Your task to perform on an android device: delete browsing data in the chrome app Image 0: 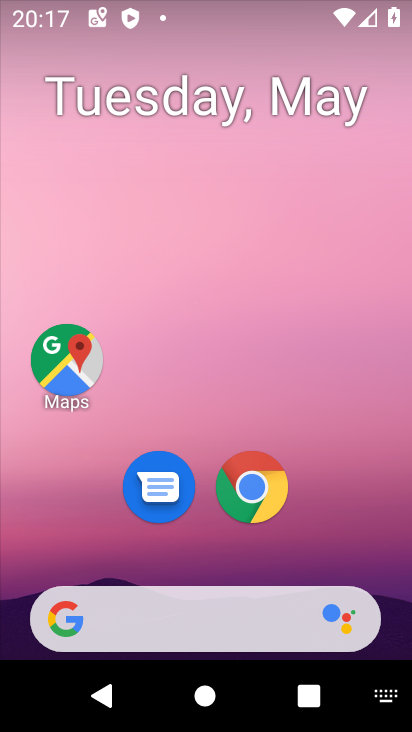
Step 0: click (250, 495)
Your task to perform on an android device: delete browsing data in the chrome app Image 1: 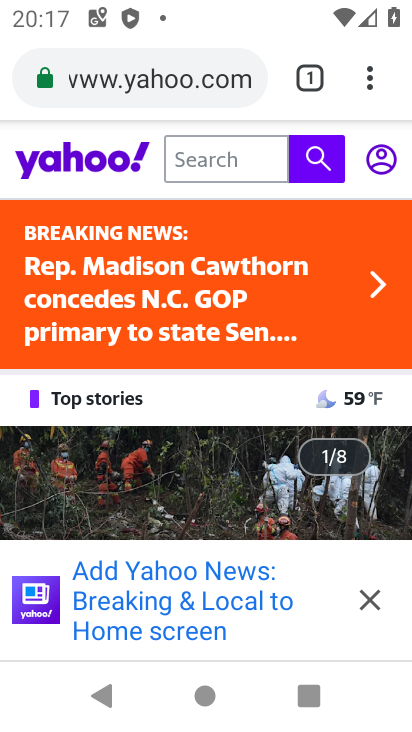
Step 1: click (386, 76)
Your task to perform on an android device: delete browsing data in the chrome app Image 2: 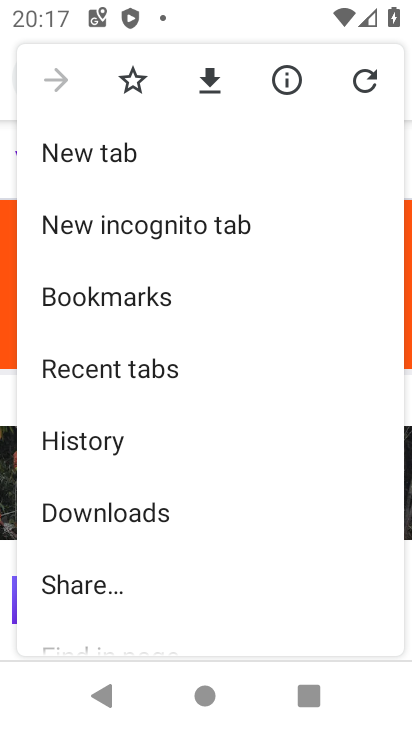
Step 2: drag from (209, 542) to (198, 348)
Your task to perform on an android device: delete browsing data in the chrome app Image 3: 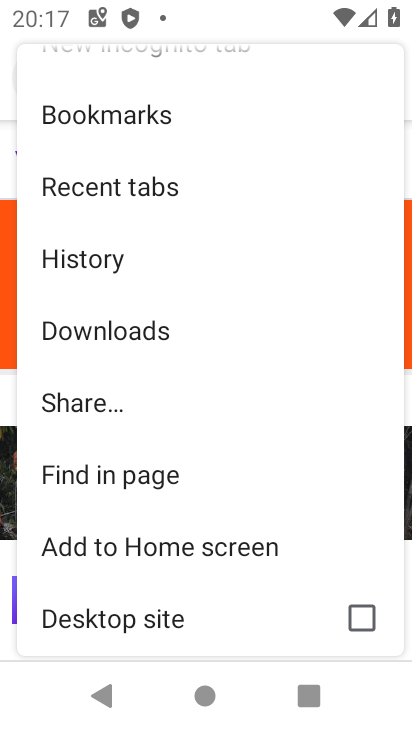
Step 3: drag from (216, 559) to (197, 206)
Your task to perform on an android device: delete browsing data in the chrome app Image 4: 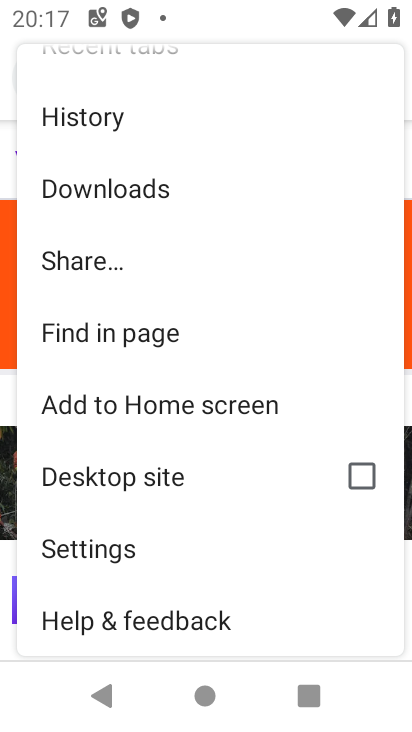
Step 4: click (195, 544)
Your task to perform on an android device: delete browsing data in the chrome app Image 5: 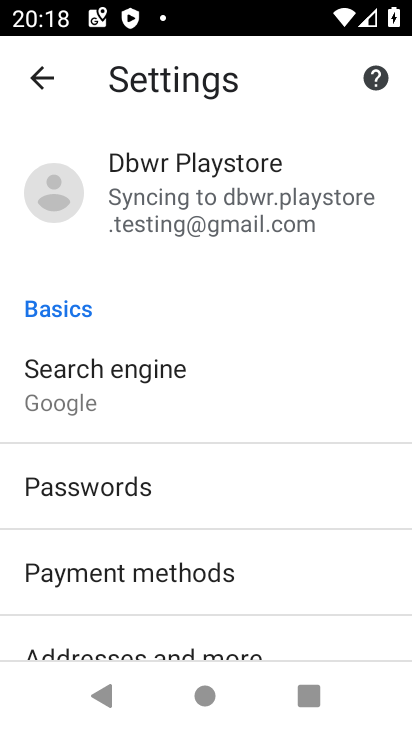
Step 5: drag from (193, 598) to (161, 316)
Your task to perform on an android device: delete browsing data in the chrome app Image 6: 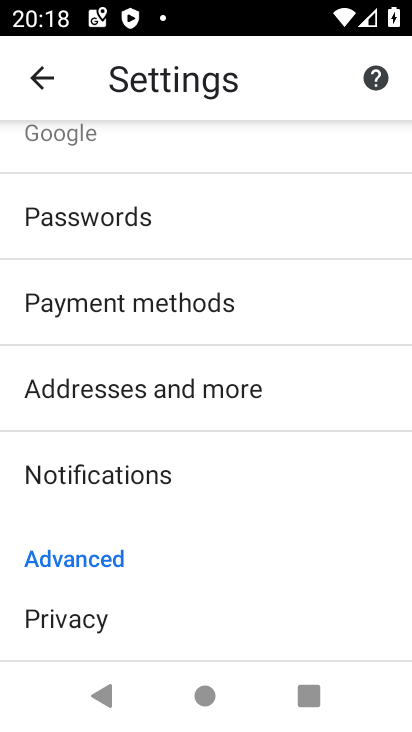
Step 6: drag from (211, 532) to (212, 306)
Your task to perform on an android device: delete browsing data in the chrome app Image 7: 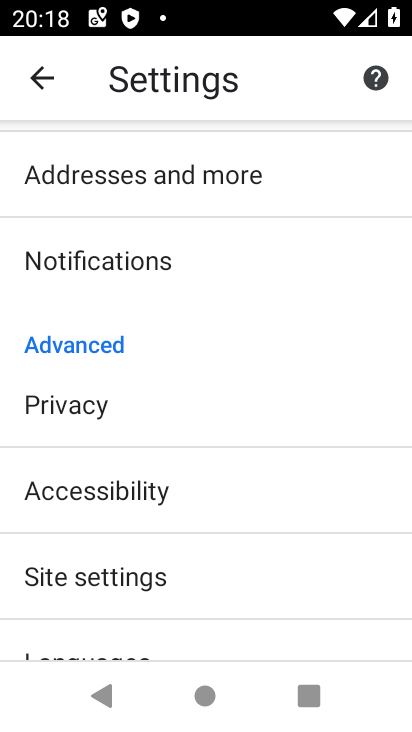
Step 7: drag from (267, 580) to (266, 271)
Your task to perform on an android device: delete browsing data in the chrome app Image 8: 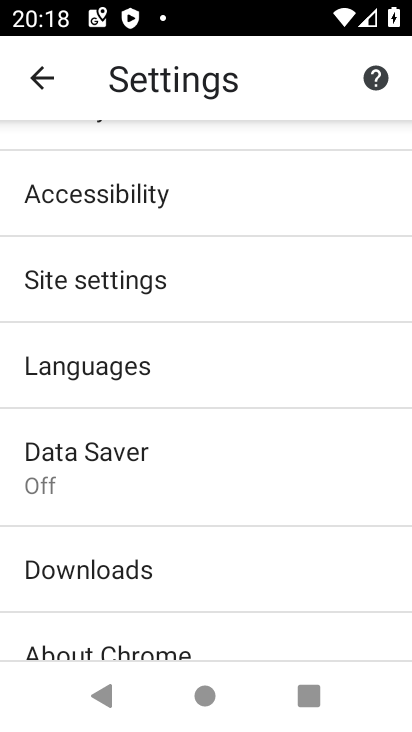
Step 8: click (20, 113)
Your task to perform on an android device: delete browsing data in the chrome app Image 9: 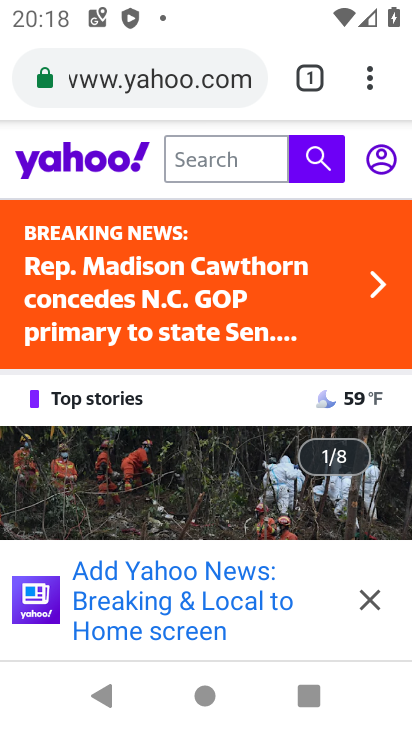
Step 9: click (370, 92)
Your task to perform on an android device: delete browsing data in the chrome app Image 10: 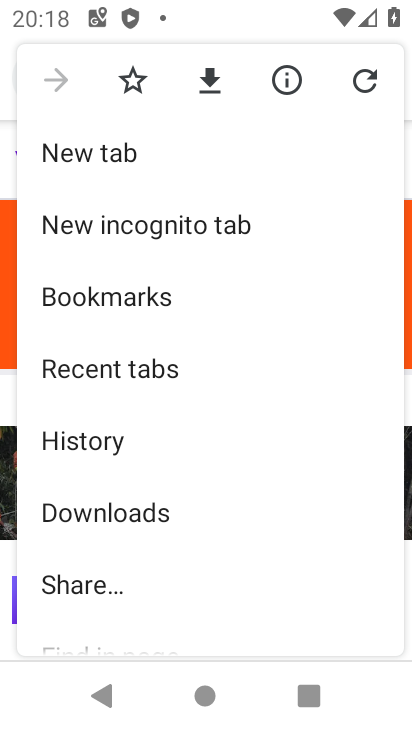
Step 10: click (243, 453)
Your task to perform on an android device: delete browsing data in the chrome app Image 11: 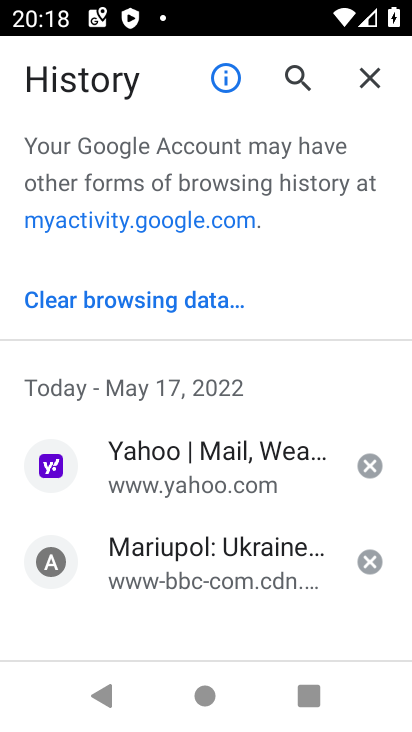
Step 11: click (111, 299)
Your task to perform on an android device: delete browsing data in the chrome app Image 12: 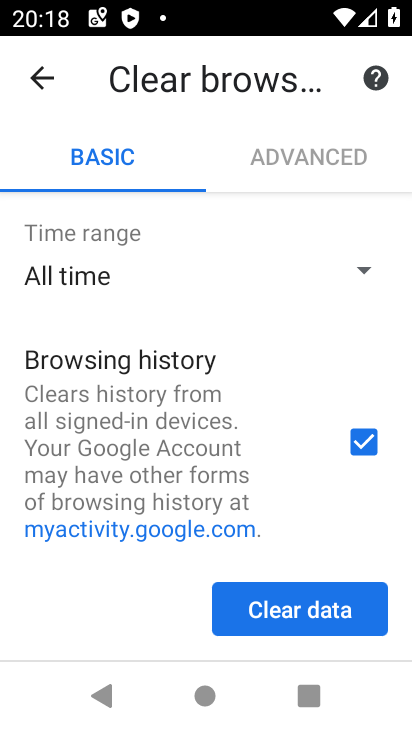
Step 12: click (303, 602)
Your task to perform on an android device: delete browsing data in the chrome app Image 13: 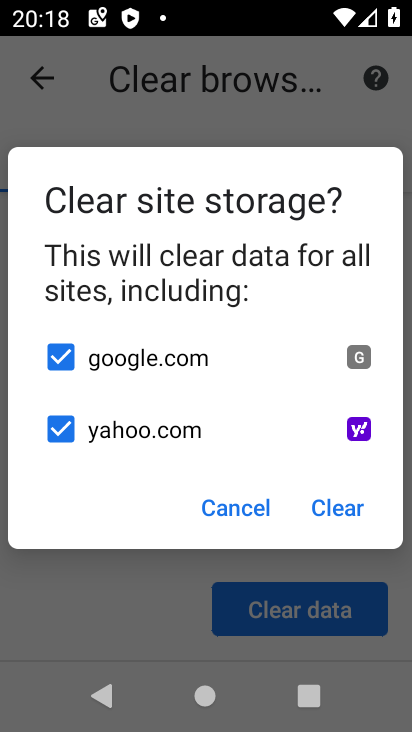
Step 13: click (334, 533)
Your task to perform on an android device: delete browsing data in the chrome app Image 14: 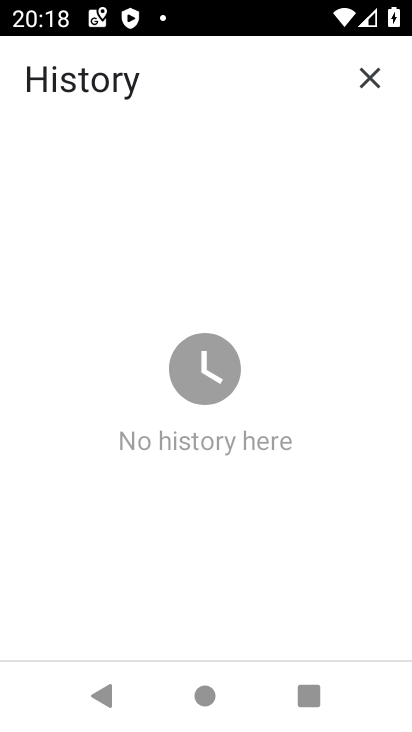
Step 14: task complete